Your task to perform on an android device: choose inbox layout in the gmail app Image 0: 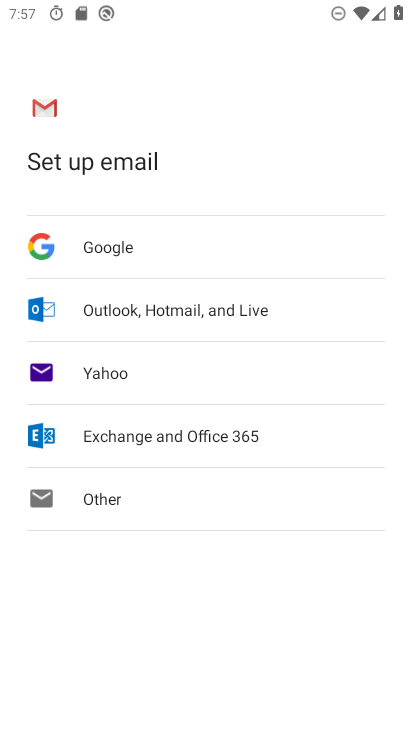
Step 0: press home button
Your task to perform on an android device: choose inbox layout in the gmail app Image 1: 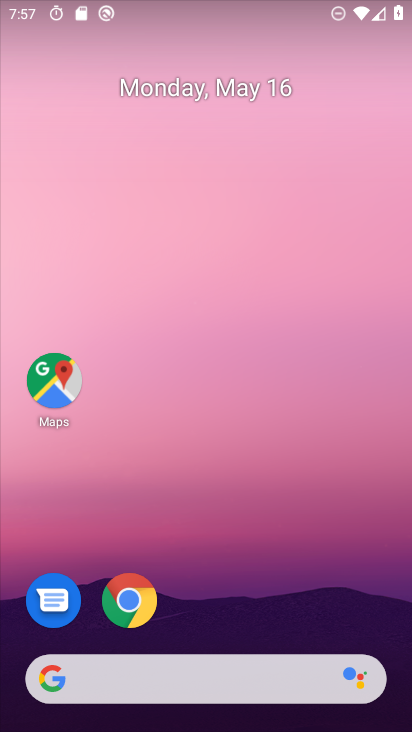
Step 1: drag from (134, 677) to (292, 143)
Your task to perform on an android device: choose inbox layout in the gmail app Image 2: 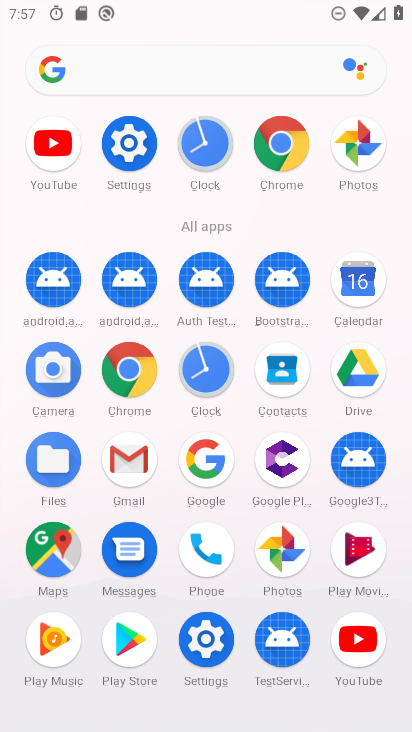
Step 2: click (129, 463)
Your task to perform on an android device: choose inbox layout in the gmail app Image 3: 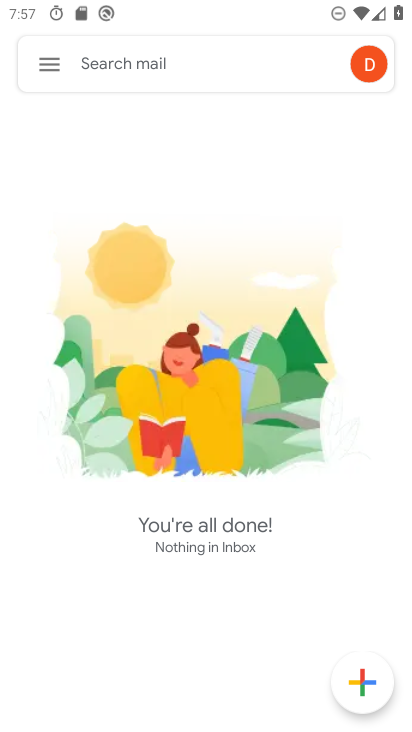
Step 3: click (50, 55)
Your task to perform on an android device: choose inbox layout in the gmail app Image 4: 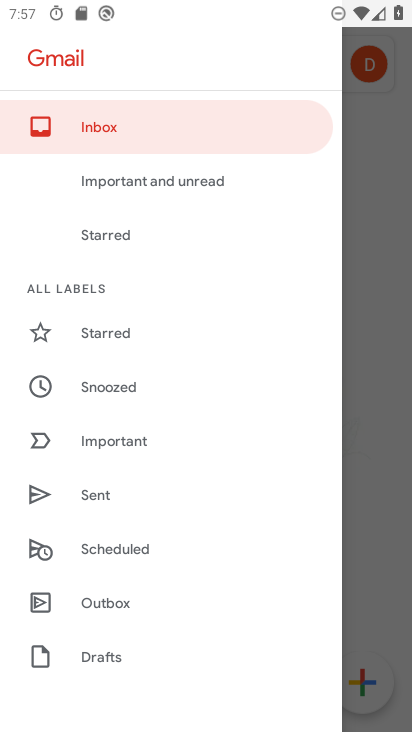
Step 4: drag from (214, 610) to (262, 220)
Your task to perform on an android device: choose inbox layout in the gmail app Image 5: 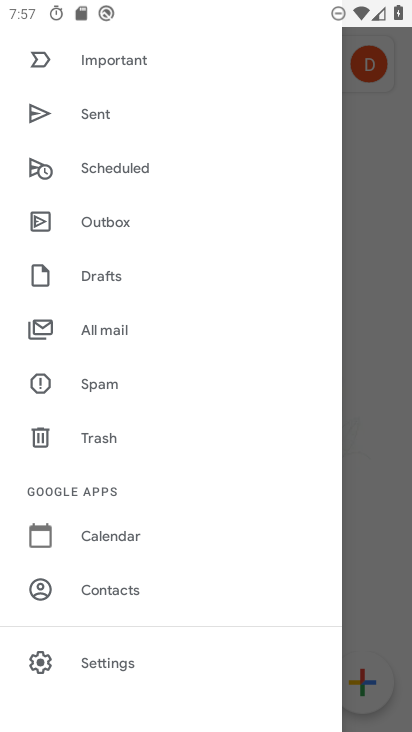
Step 5: click (101, 665)
Your task to perform on an android device: choose inbox layout in the gmail app Image 6: 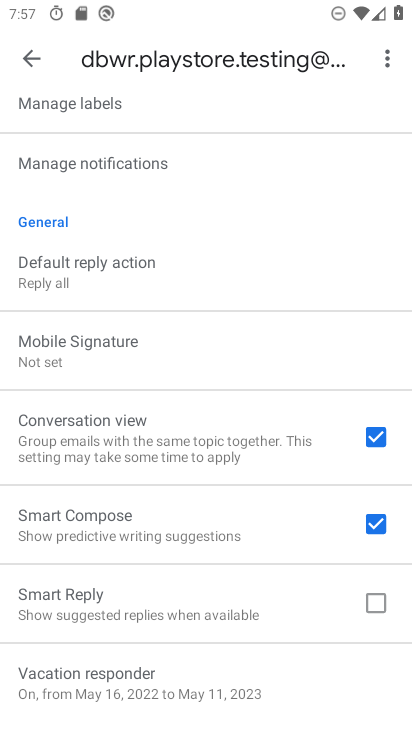
Step 6: drag from (269, 184) to (153, 607)
Your task to perform on an android device: choose inbox layout in the gmail app Image 7: 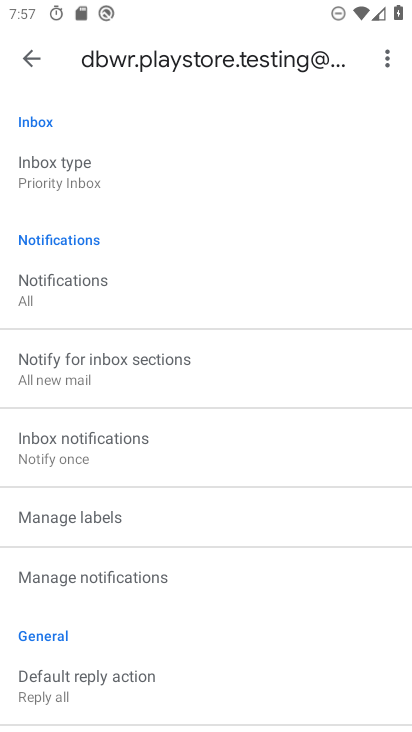
Step 7: click (75, 156)
Your task to perform on an android device: choose inbox layout in the gmail app Image 8: 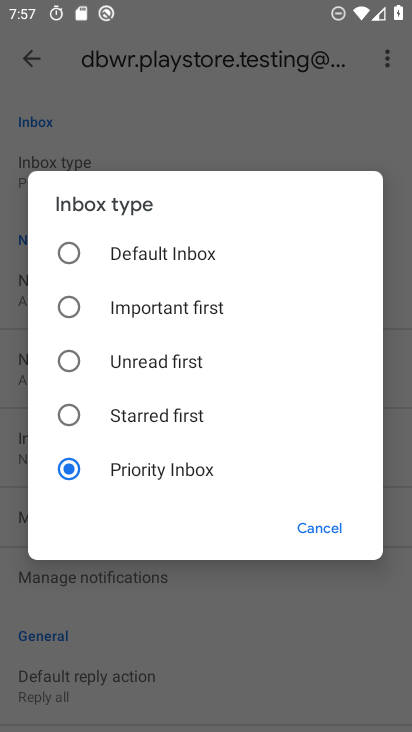
Step 8: click (62, 293)
Your task to perform on an android device: choose inbox layout in the gmail app Image 9: 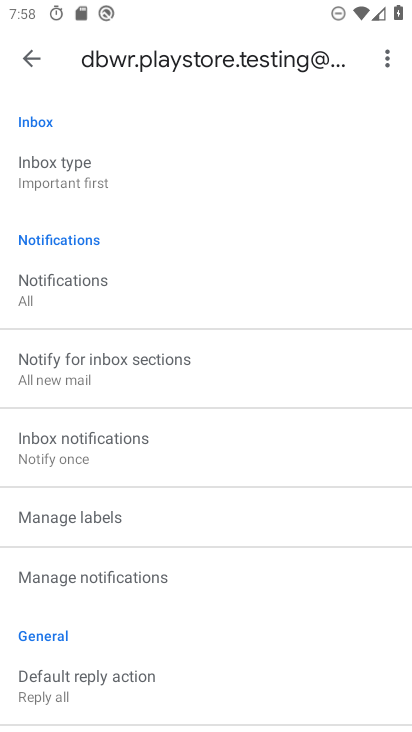
Step 9: task complete